Your task to perform on an android device: find snoozed emails in the gmail app Image 0: 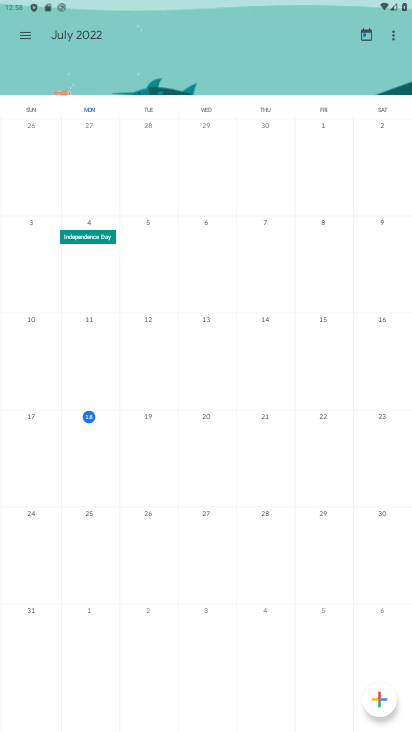
Step 0: press home button
Your task to perform on an android device: find snoozed emails in the gmail app Image 1: 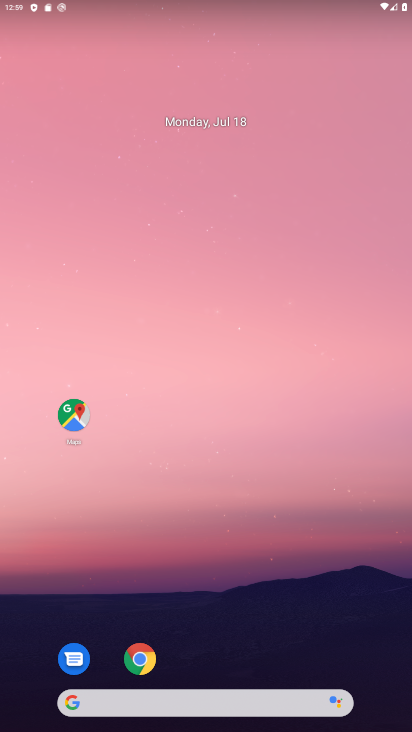
Step 1: drag from (180, 170) to (179, 16)
Your task to perform on an android device: find snoozed emails in the gmail app Image 2: 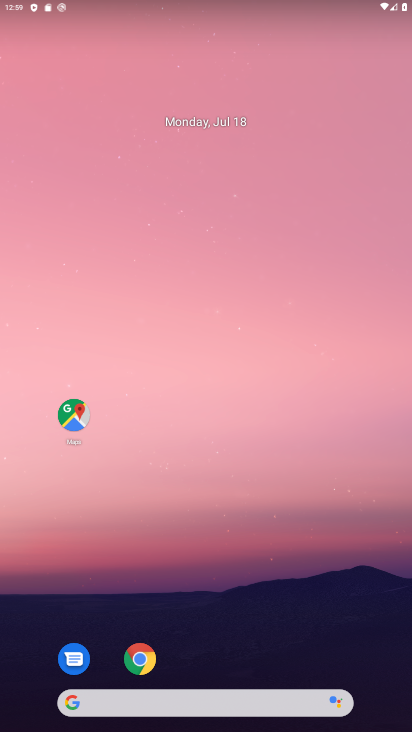
Step 2: drag from (271, 691) to (212, 111)
Your task to perform on an android device: find snoozed emails in the gmail app Image 3: 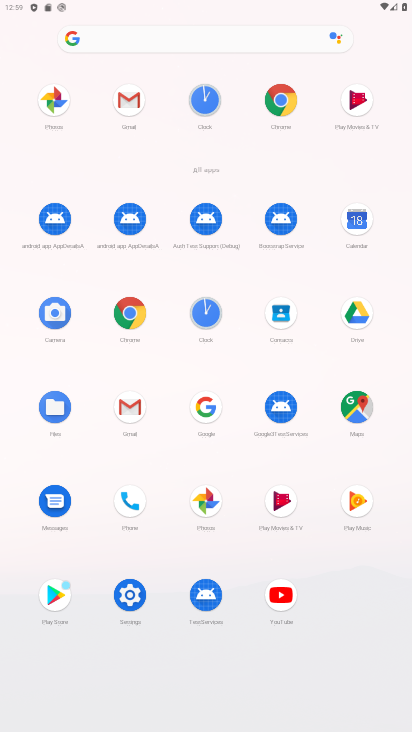
Step 3: click (120, 94)
Your task to perform on an android device: find snoozed emails in the gmail app Image 4: 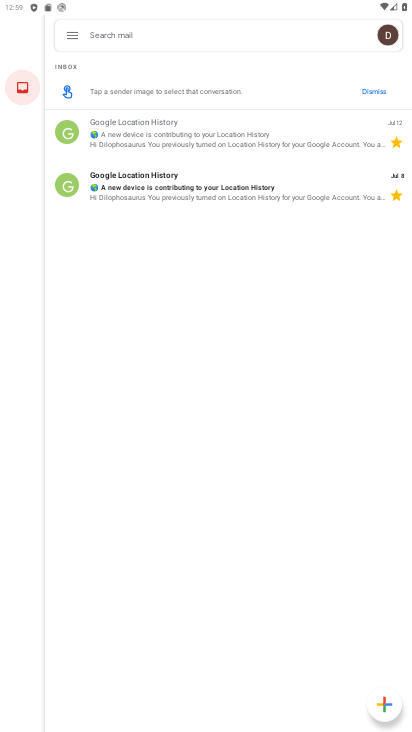
Step 4: click (72, 33)
Your task to perform on an android device: find snoozed emails in the gmail app Image 5: 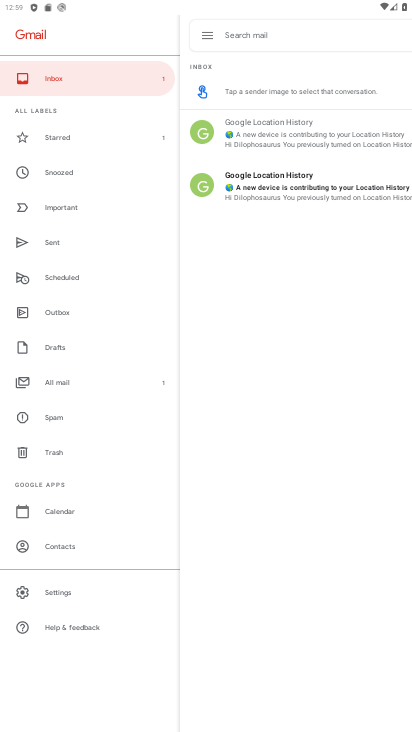
Step 5: click (58, 168)
Your task to perform on an android device: find snoozed emails in the gmail app Image 6: 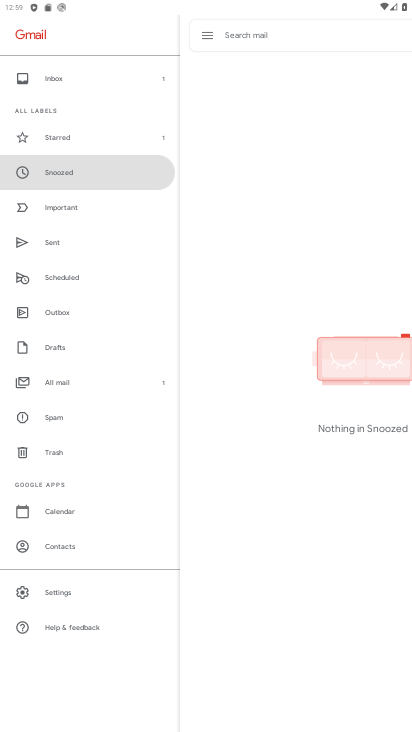
Step 6: task complete